Your task to perform on an android device: Open maps Image 0: 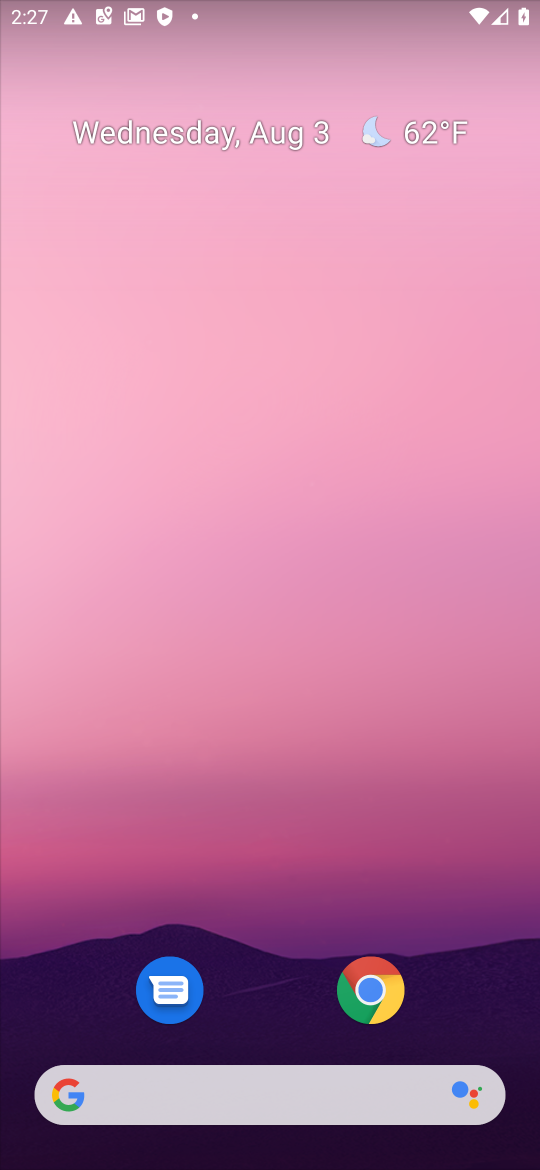
Step 0: drag from (307, 1059) to (286, 357)
Your task to perform on an android device: Open maps Image 1: 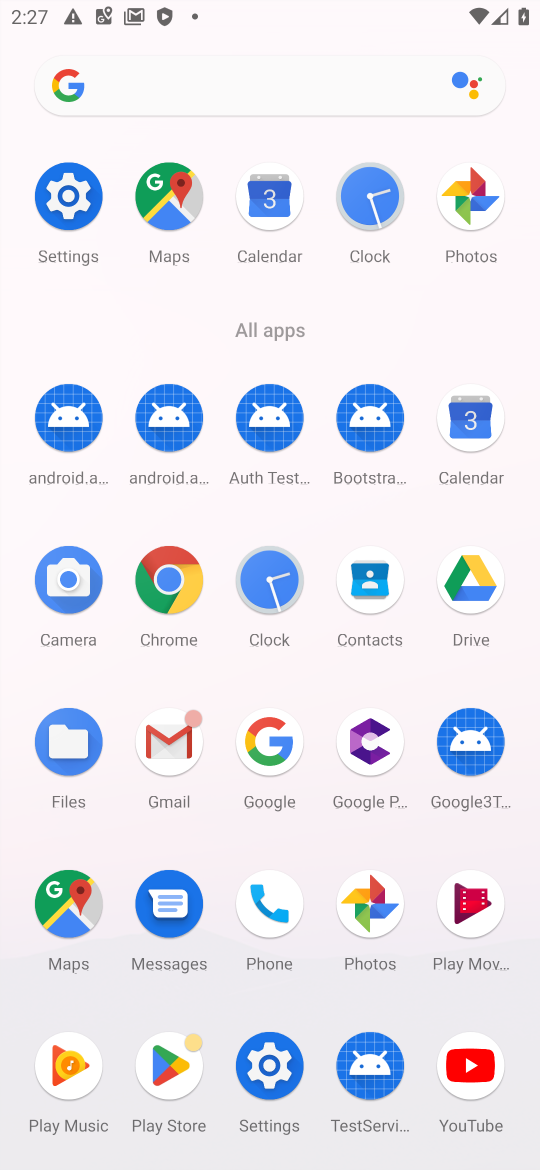
Step 1: click (84, 907)
Your task to perform on an android device: Open maps Image 2: 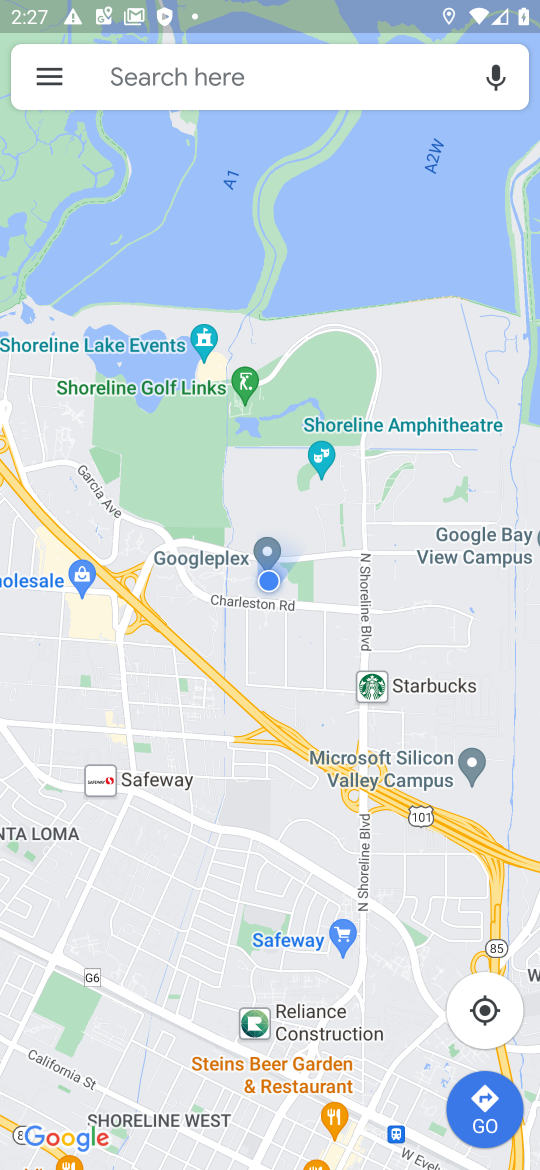
Step 2: task complete